Your task to perform on an android device: Open display settings Image 0: 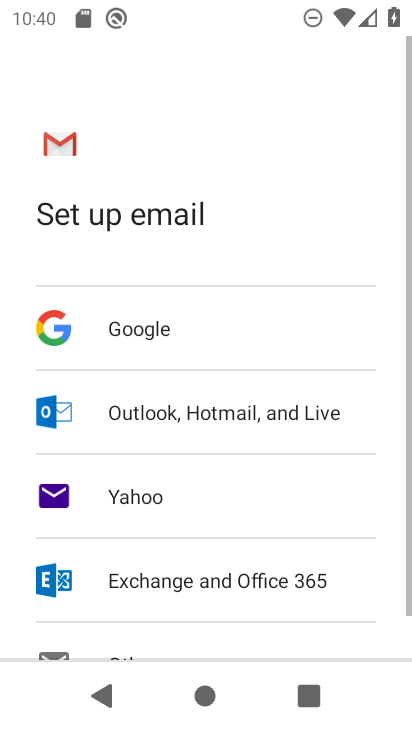
Step 0: press home button
Your task to perform on an android device: Open display settings Image 1: 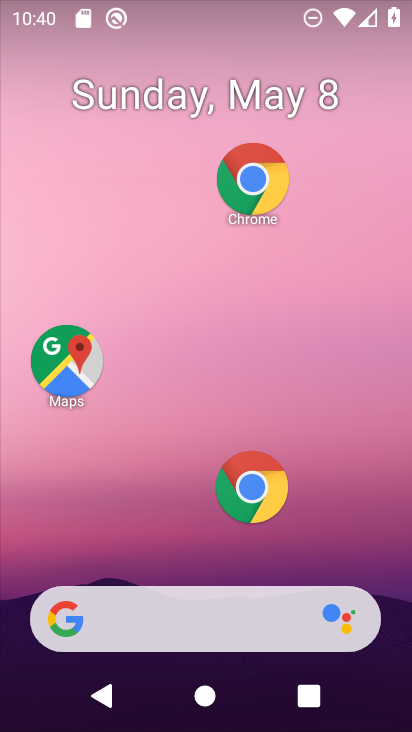
Step 1: drag from (169, 511) to (195, 41)
Your task to perform on an android device: Open display settings Image 2: 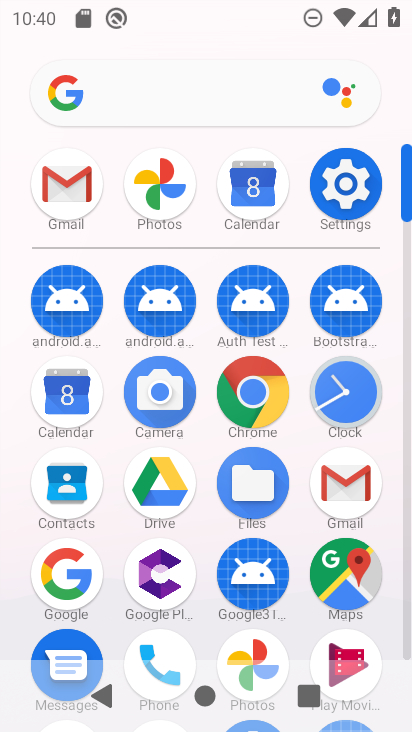
Step 2: click (337, 179)
Your task to perform on an android device: Open display settings Image 3: 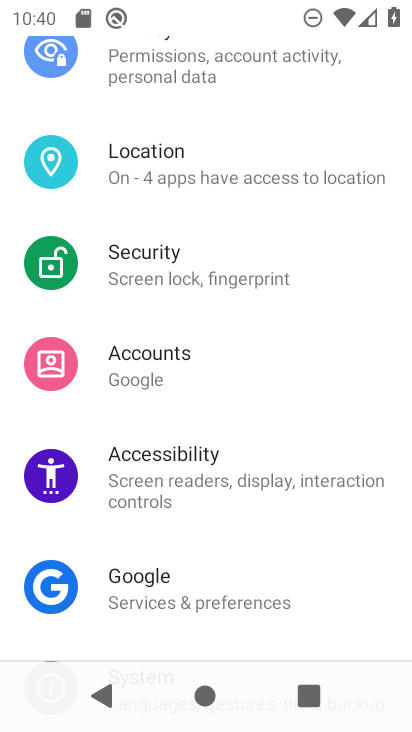
Step 3: drag from (240, 129) to (267, 638)
Your task to perform on an android device: Open display settings Image 4: 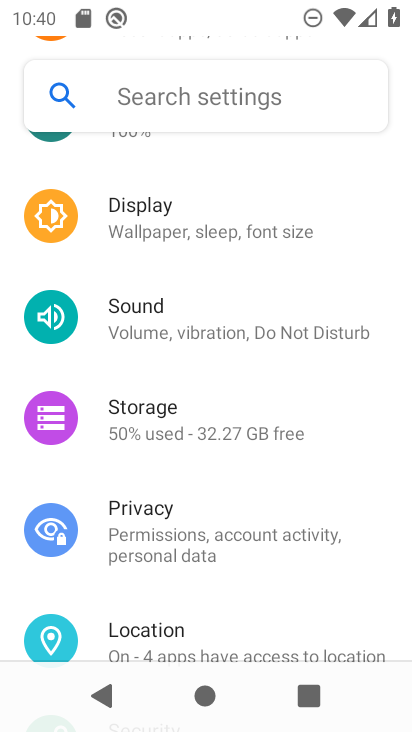
Step 4: click (236, 222)
Your task to perform on an android device: Open display settings Image 5: 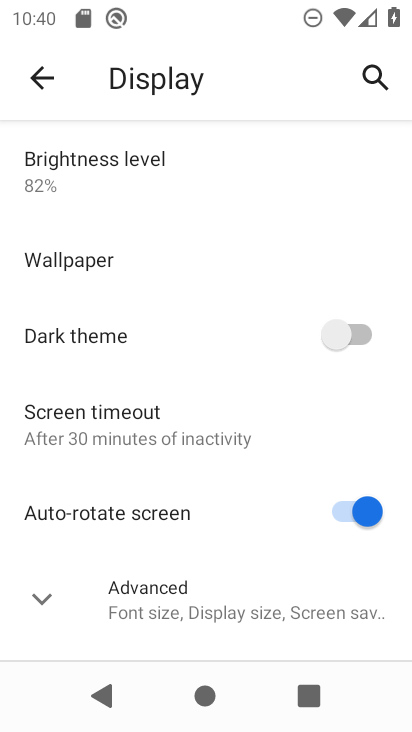
Step 5: task complete